Your task to perform on an android device: delete a single message in the gmail app Image 0: 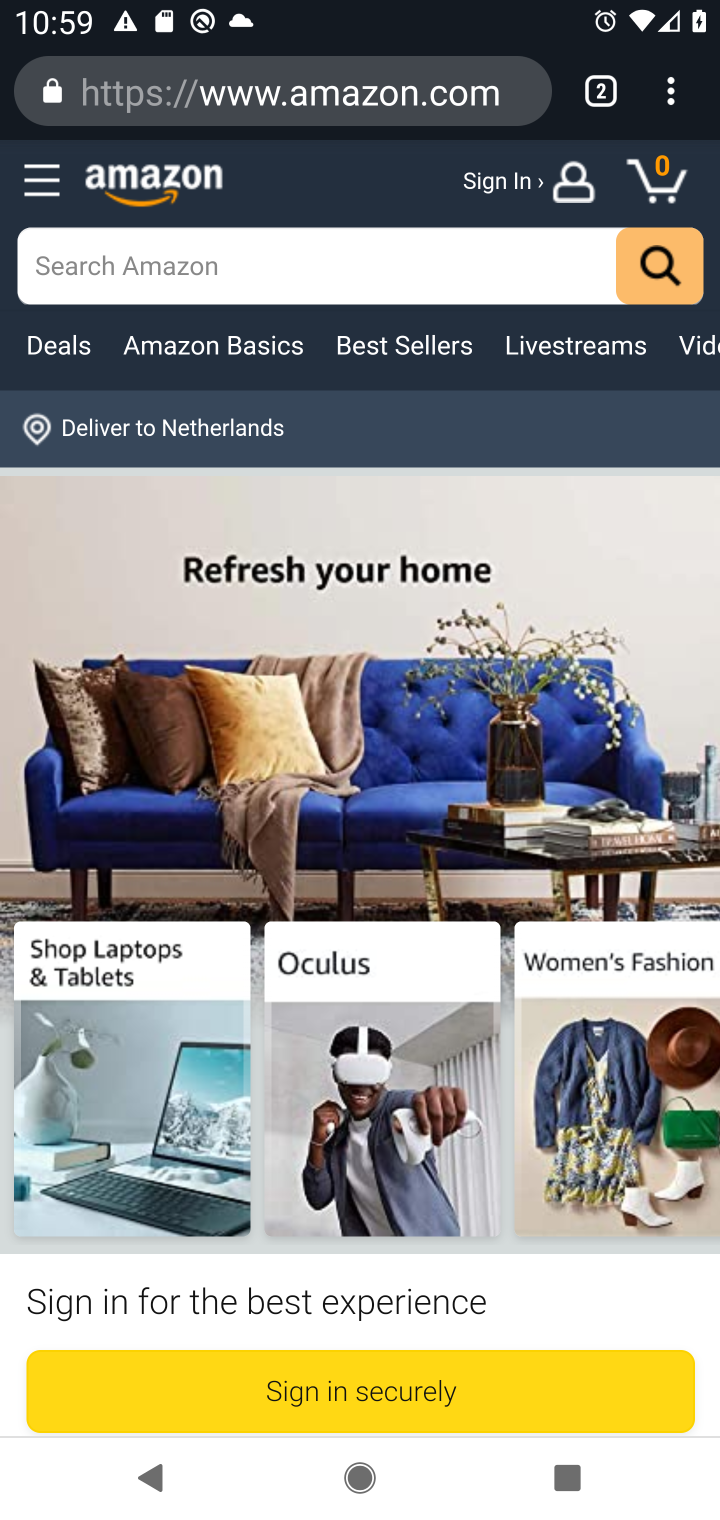
Step 0: press home button
Your task to perform on an android device: delete a single message in the gmail app Image 1: 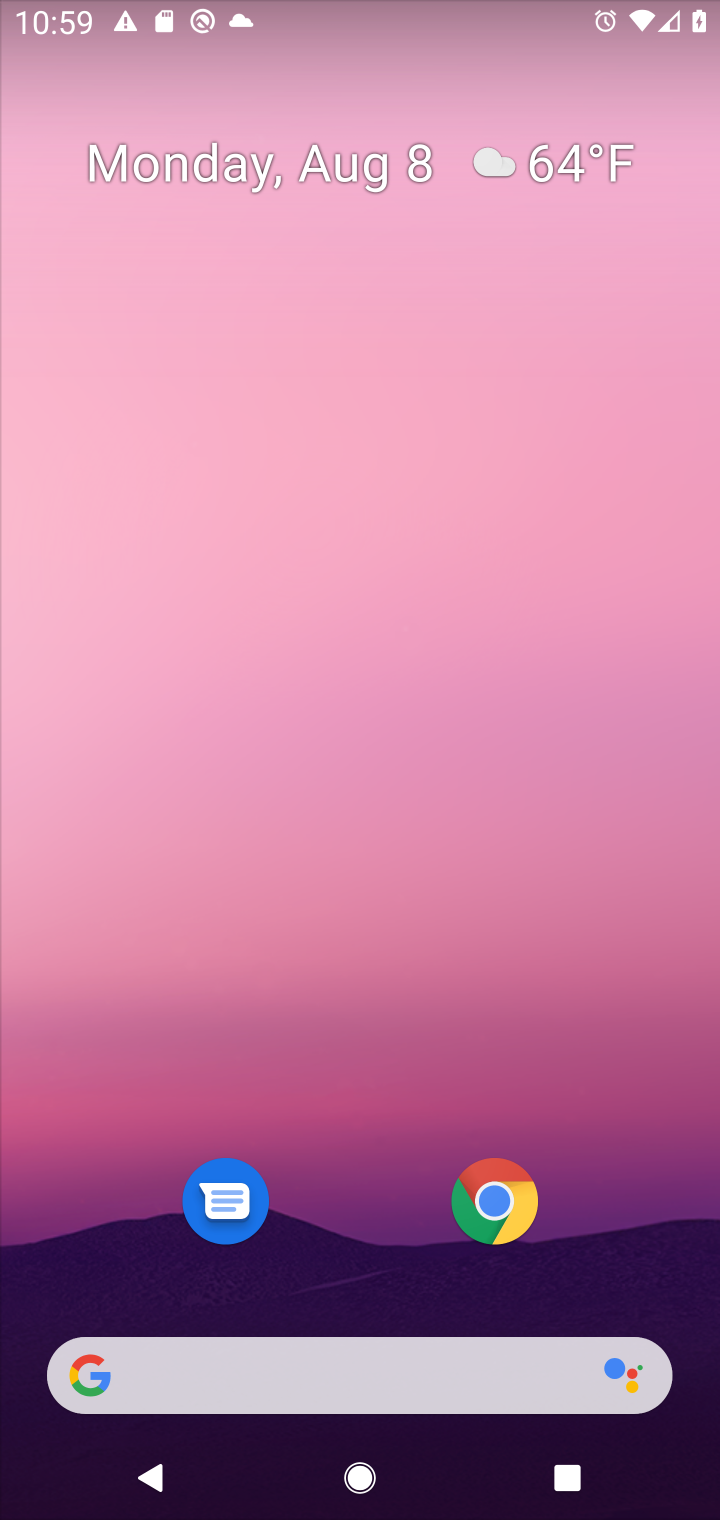
Step 1: drag from (587, 1207) to (626, 543)
Your task to perform on an android device: delete a single message in the gmail app Image 2: 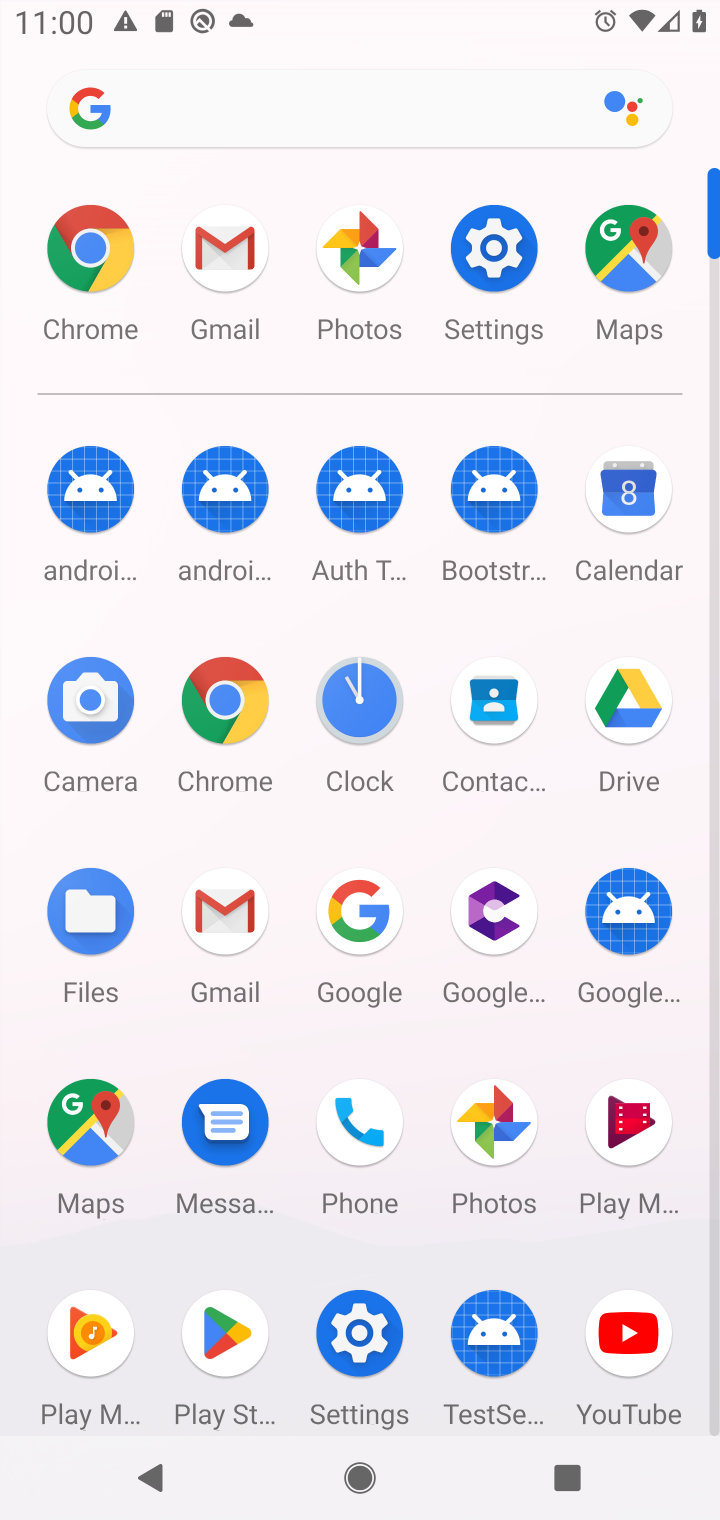
Step 2: click (221, 240)
Your task to perform on an android device: delete a single message in the gmail app Image 3: 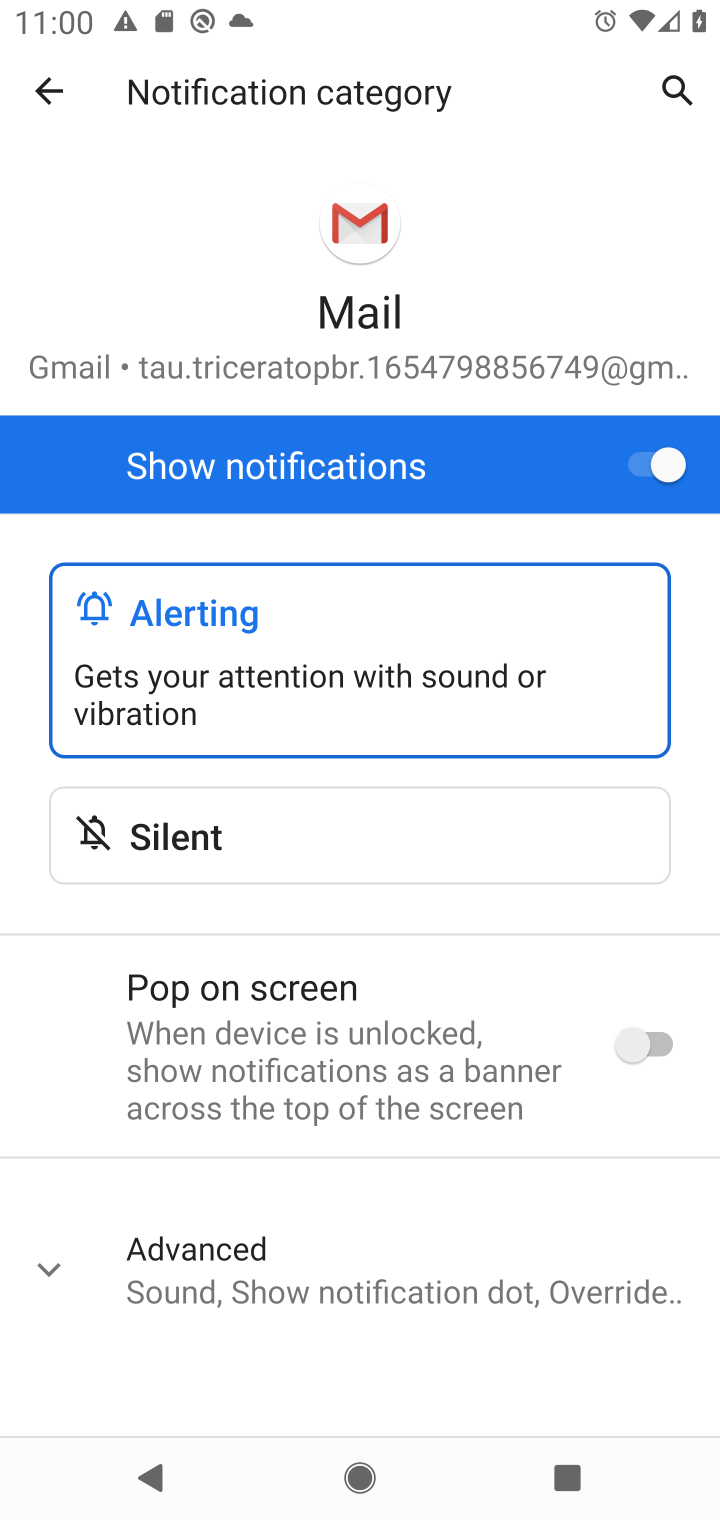
Step 3: press back button
Your task to perform on an android device: delete a single message in the gmail app Image 4: 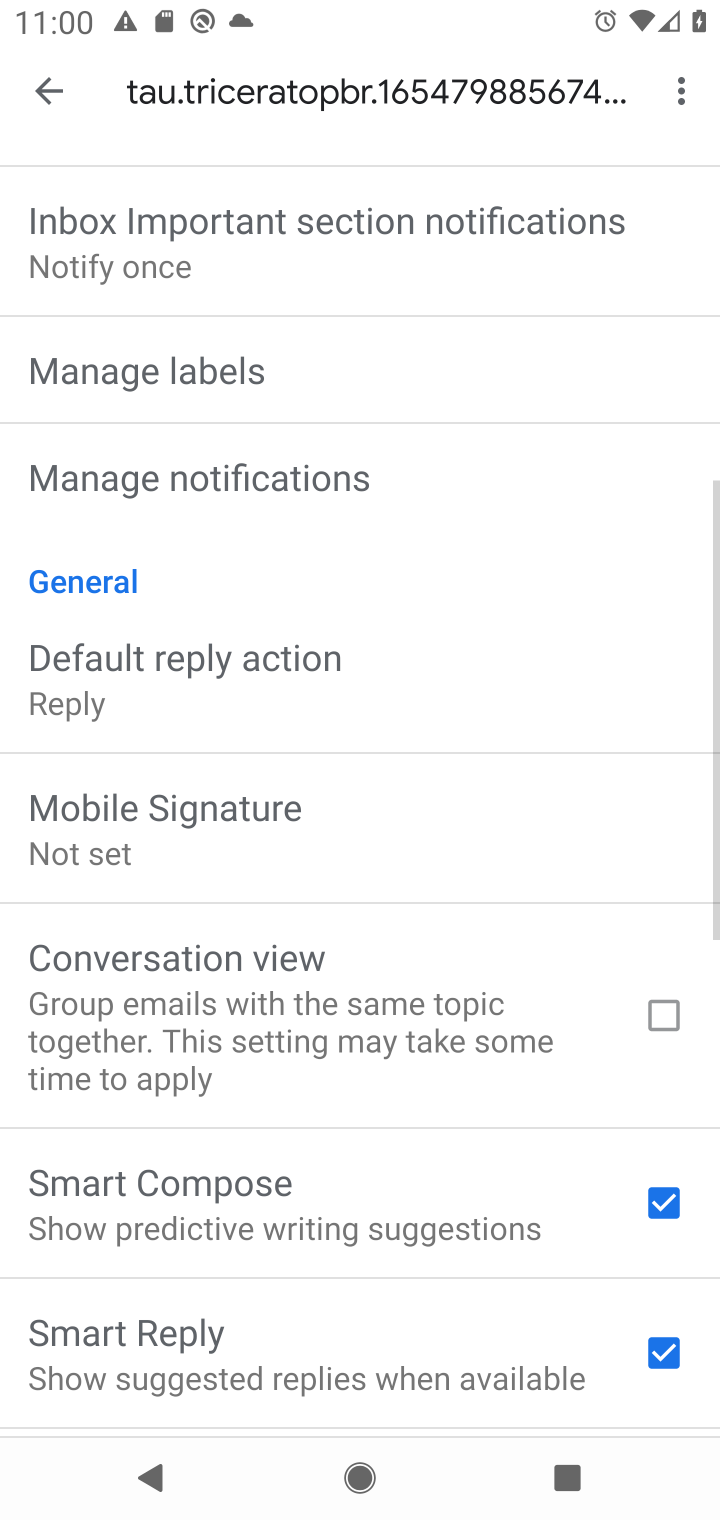
Step 4: press back button
Your task to perform on an android device: delete a single message in the gmail app Image 5: 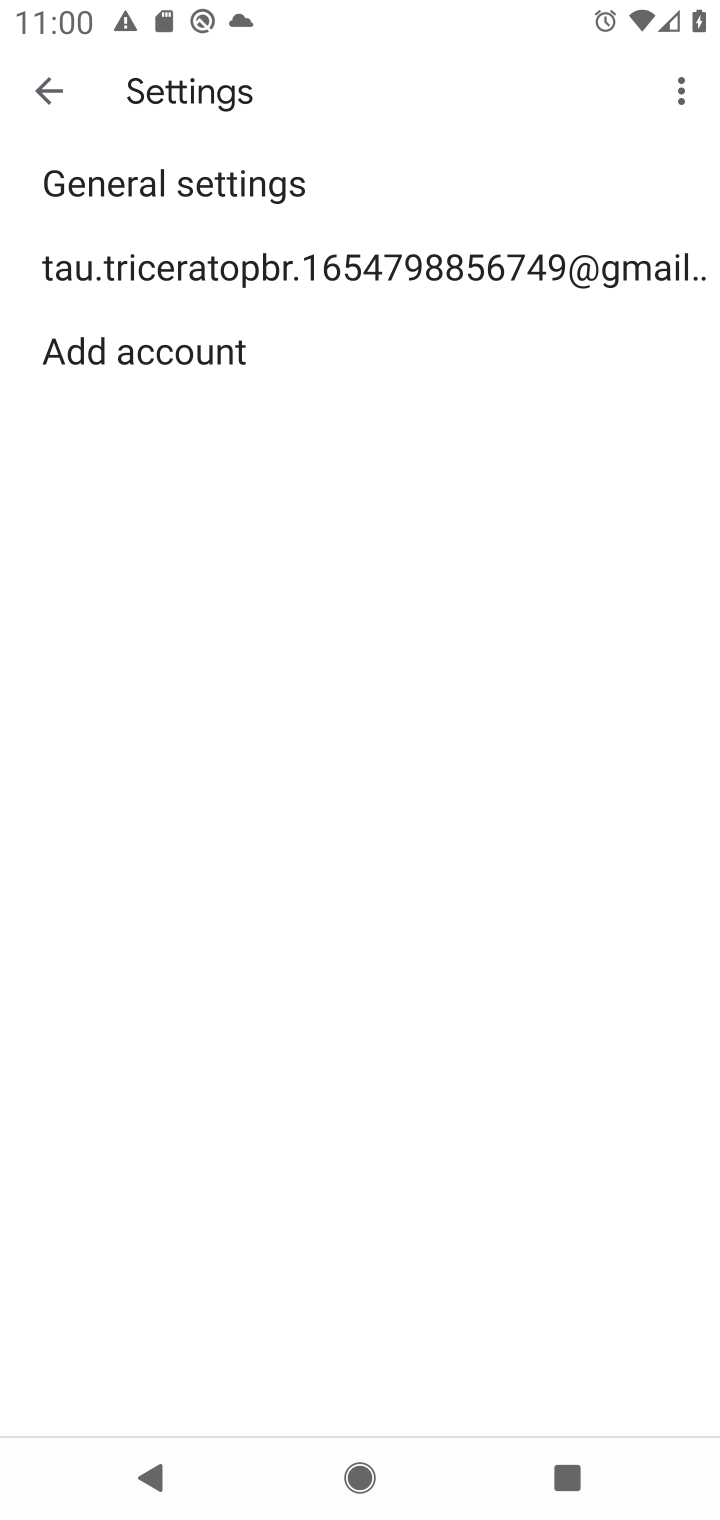
Step 5: press back button
Your task to perform on an android device: delete a single message in the gmail app Image 6: 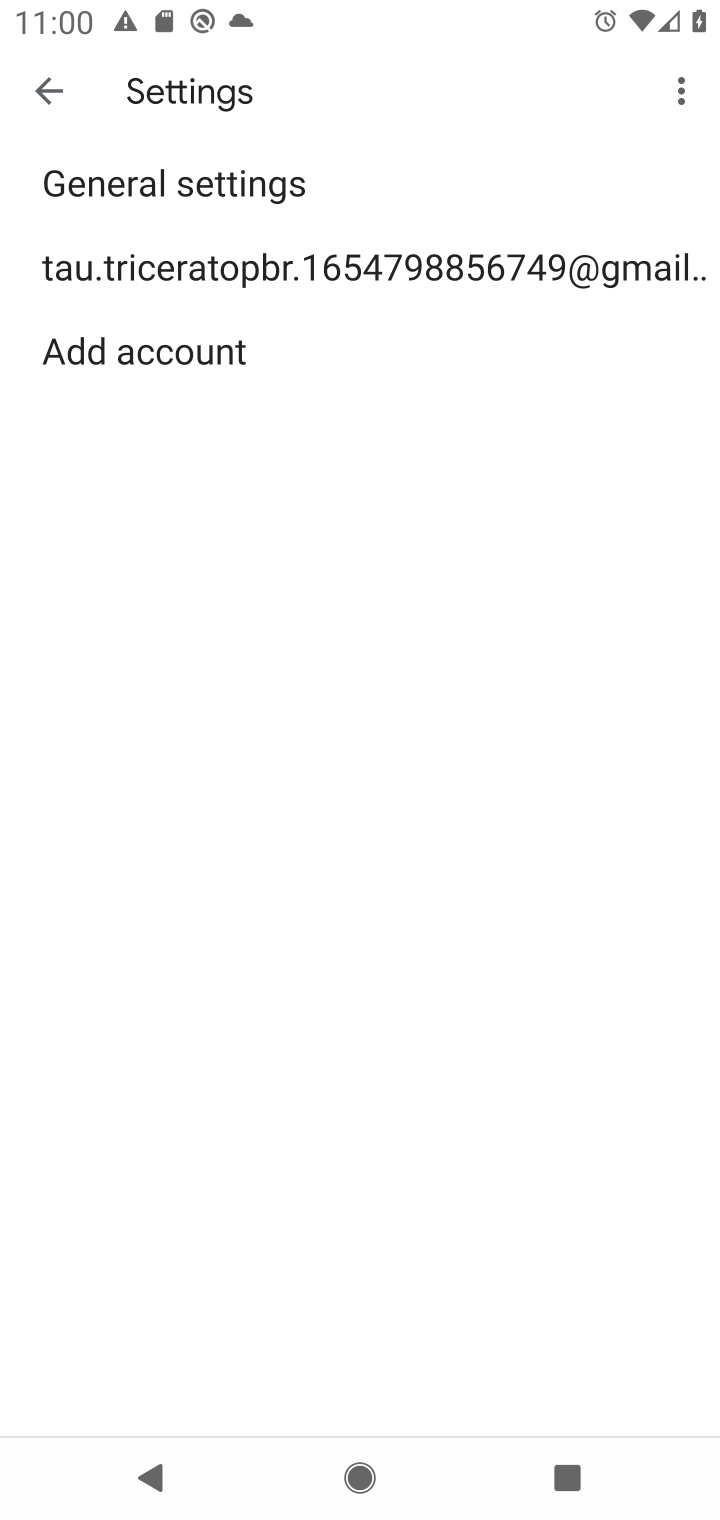
Step 6: press back button
Your task to perform on an android device: delete a single message in the gmail app Image 7: 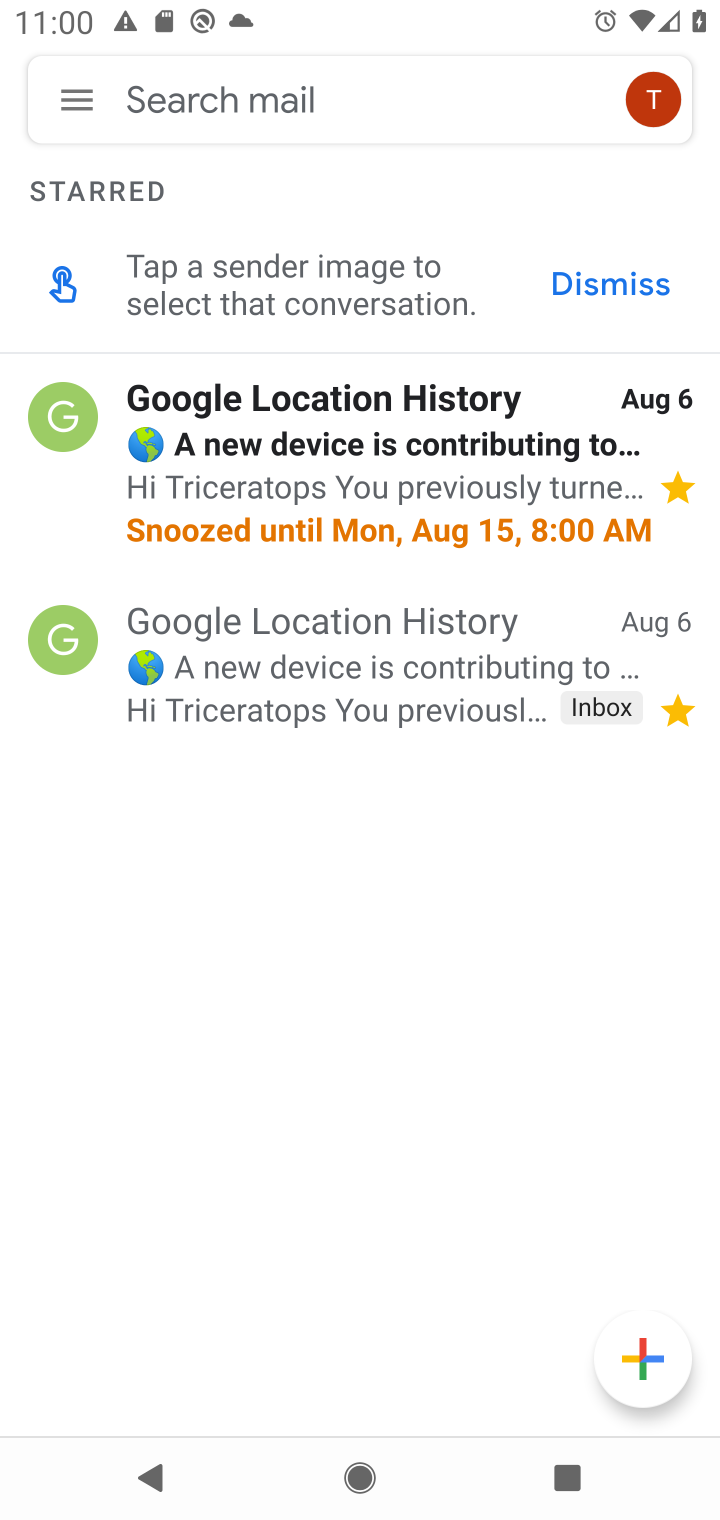
Step 7: click (402, 671)
Your task to perform on an android device: delete a single message in the gmail app Image 8: 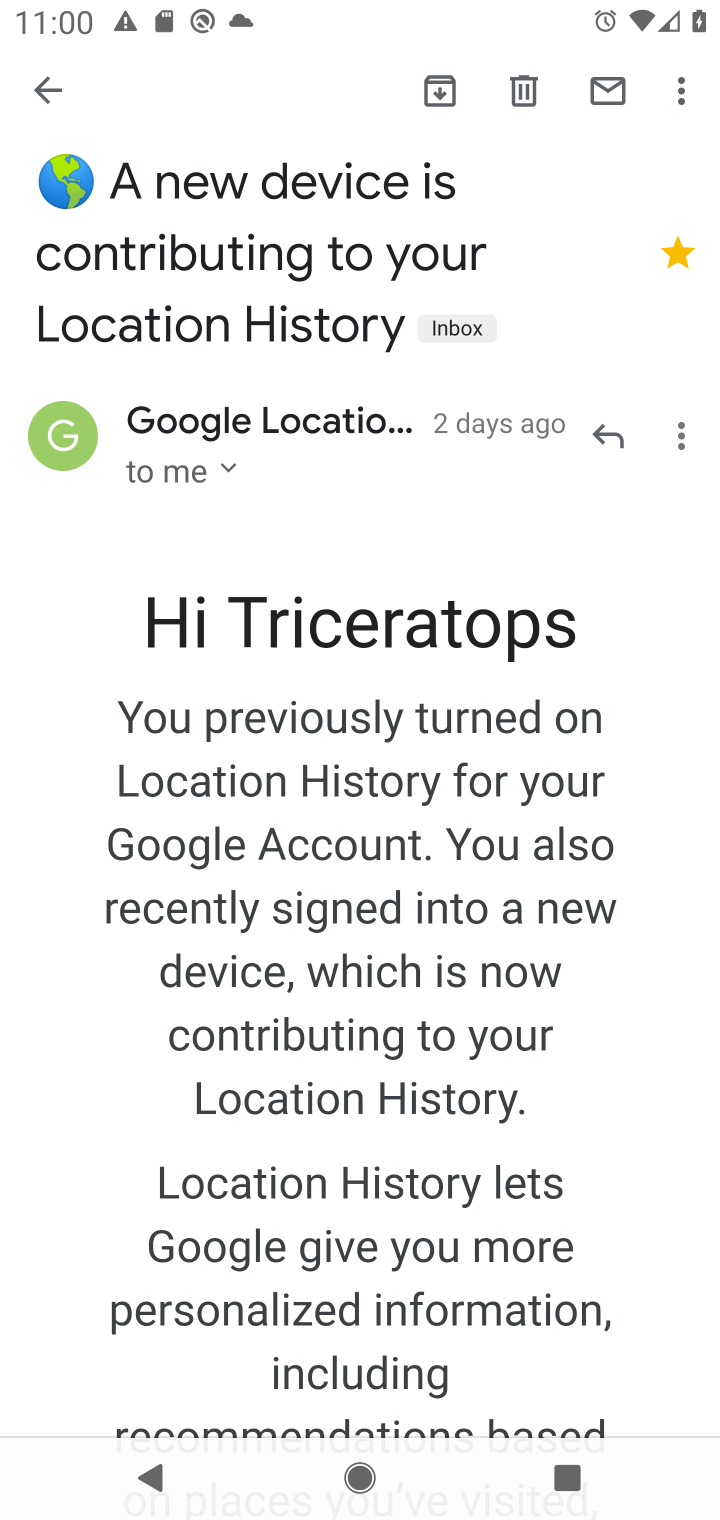
Step 8: click (518, 77)
Your task to perform on an android device: delete a single message in the gmail app Image 9: 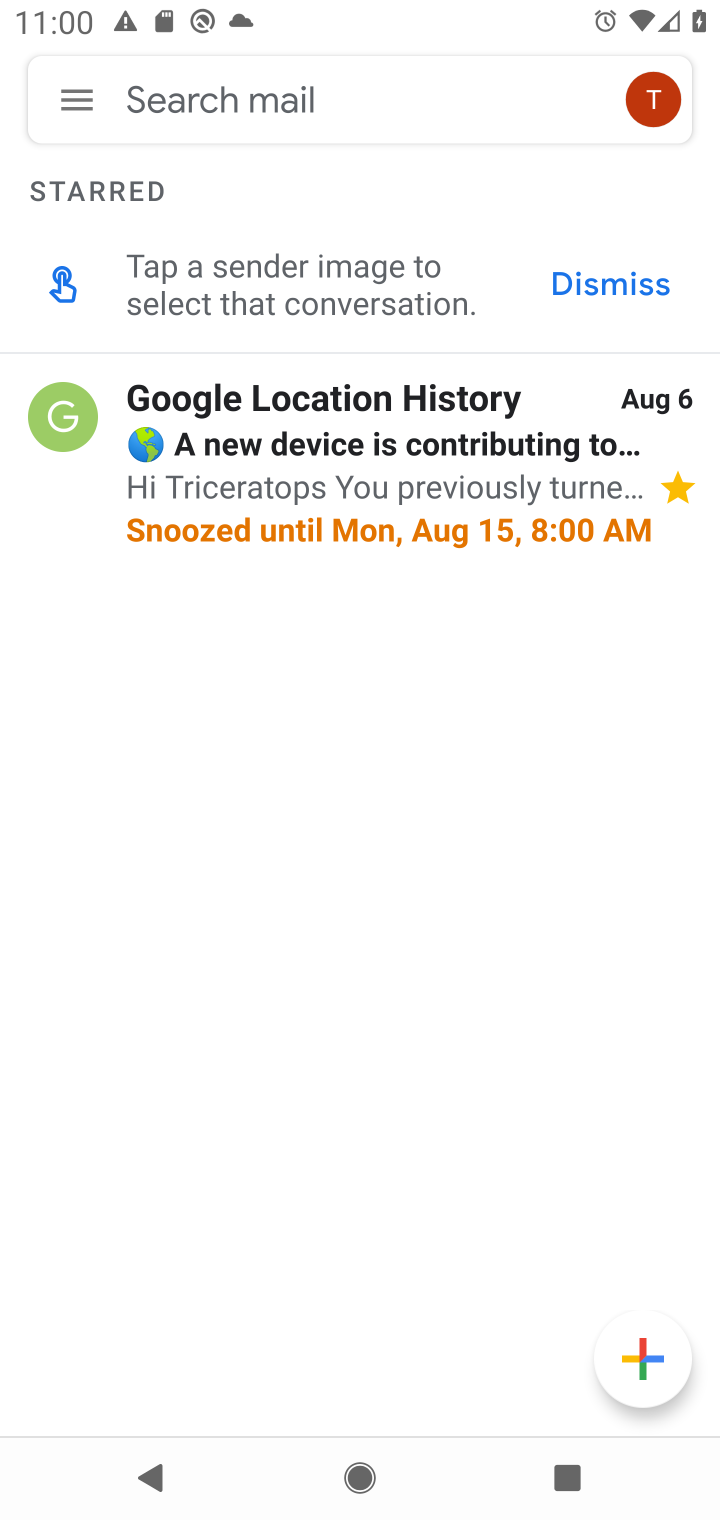
Step 9: task complete